Your task to perform on an android device: Go to network settings Image 0: 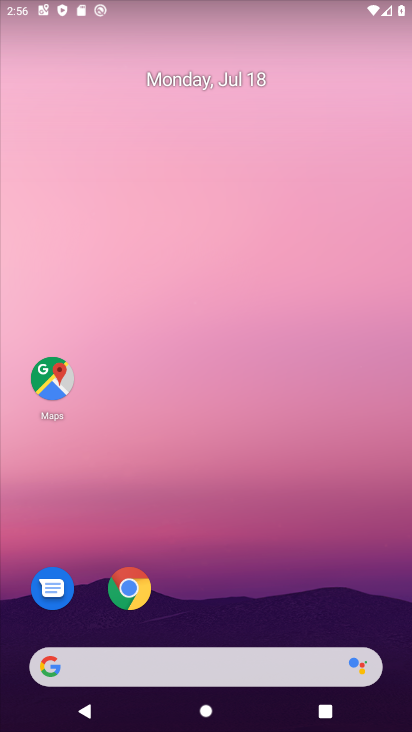
Step 0: drag from (315, 592) to (183, 168)
Your task to perform on an android device: Go to network settings Image 1: 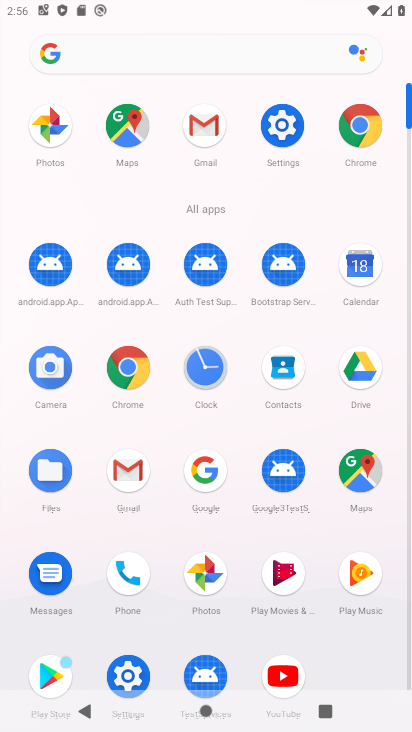
Step 1: click (282, 143)
Your task to perform on an android device: Go to network settings Image 2: 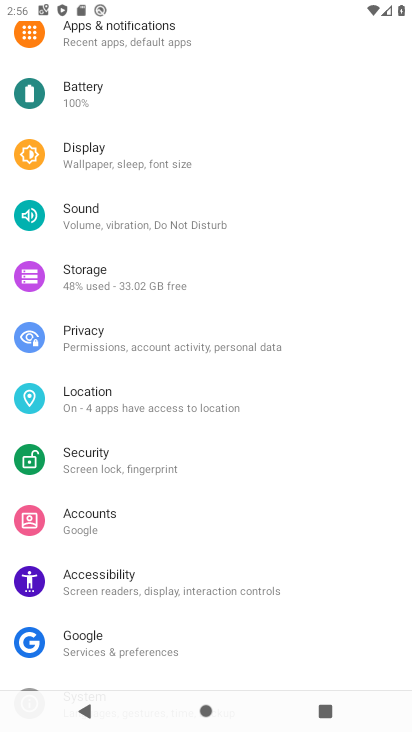
Step 2: drag from (148, 448) to (192, 168)
Your task to perform on an android device: Go to network settings Image 3: 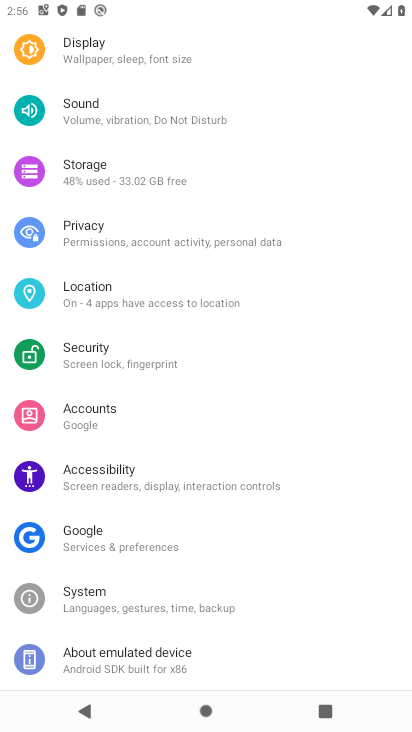
Step 3: drag from (242, 314) to (271, 537)
Your task to perform on an android device: Go to network settings Image 4: 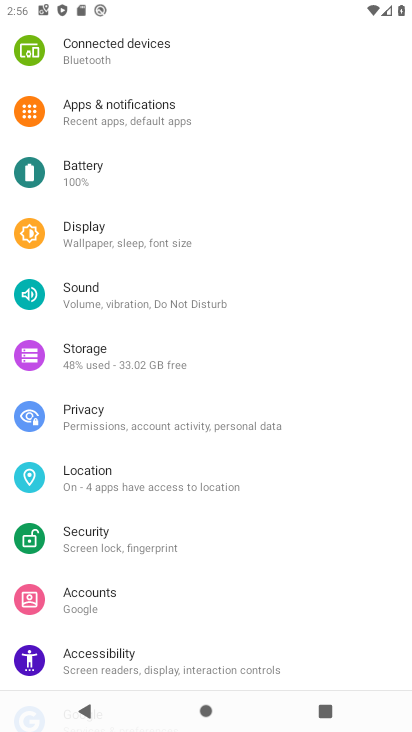
Step 4: click (130, 166)
Your task to perform on an android device: Go to network settings Image 5: 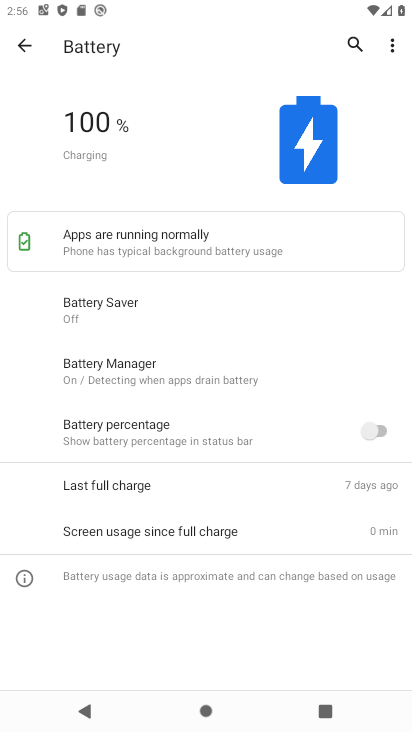
Step 5: task complete